Your task to perform on an android device: Open internet settings Image 0: 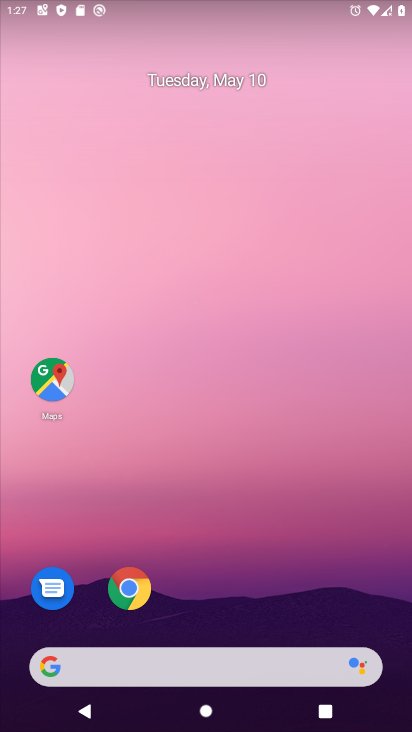
Step 0: drag from (241, 587) to (277, 206)
Your task to perform on an android device: Open internet settings Image 1: 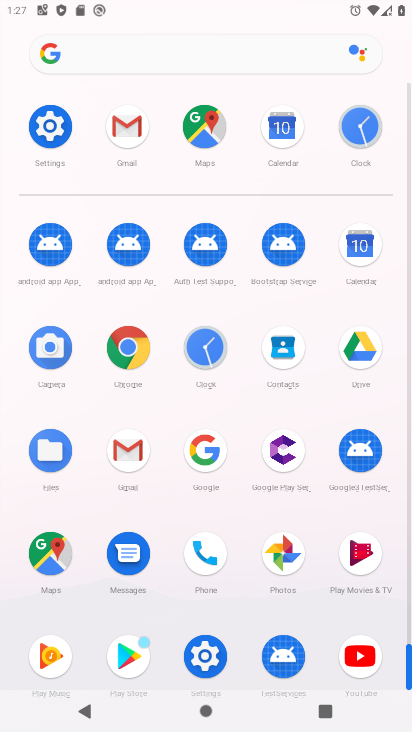
Step 1: click (57, 117)
Your task to perform on an android device: Open internet settings Image 2: 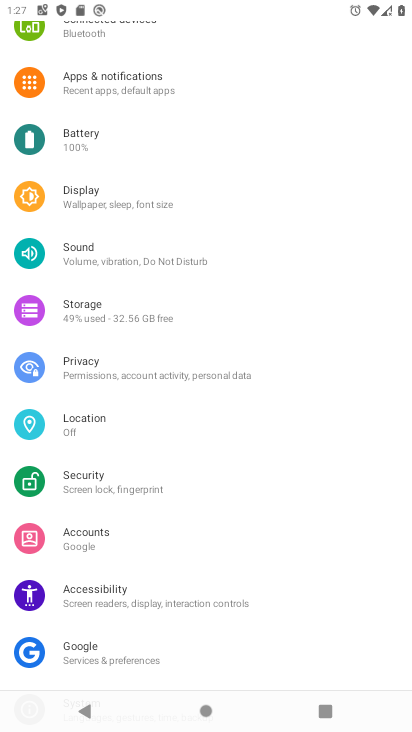
Step 2: drag from (152, 86) to (171, 552)
Your task to perform on an android device: Open internet settings Image 3: 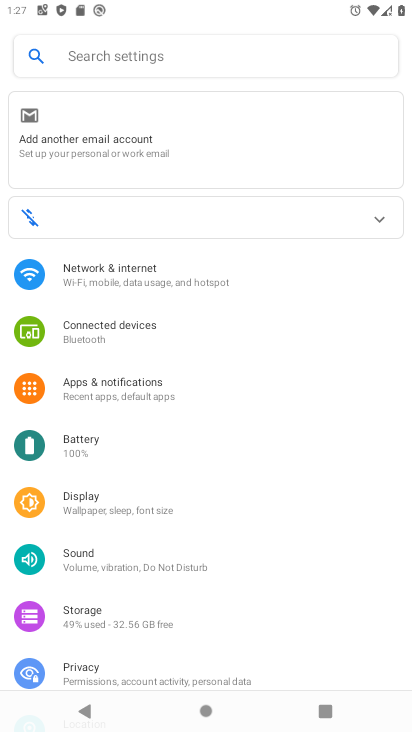
Step 3: click (159, 271)
Your task to perform on an android device: Open internet settings Image 4: 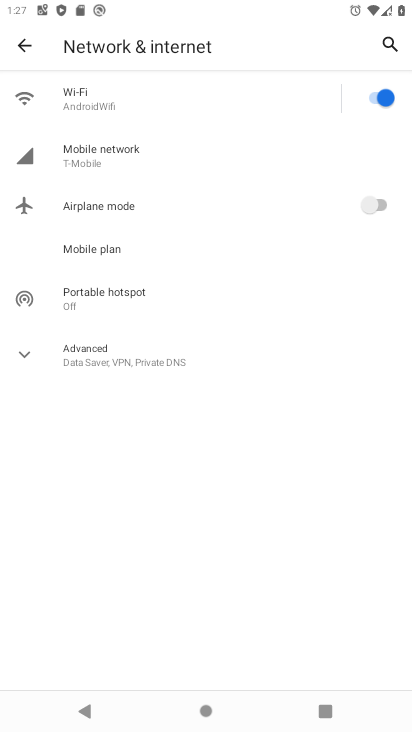
Step 4: task complete